Your task to perform on an android device: toggle pop-ups in chrome Image 0: 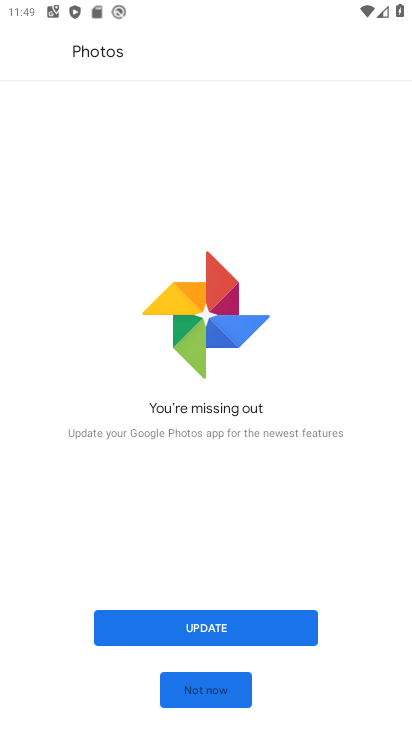
Step 0: press home button
Your task to perform on an android device: toggle pop-ups in chrome Image 1: 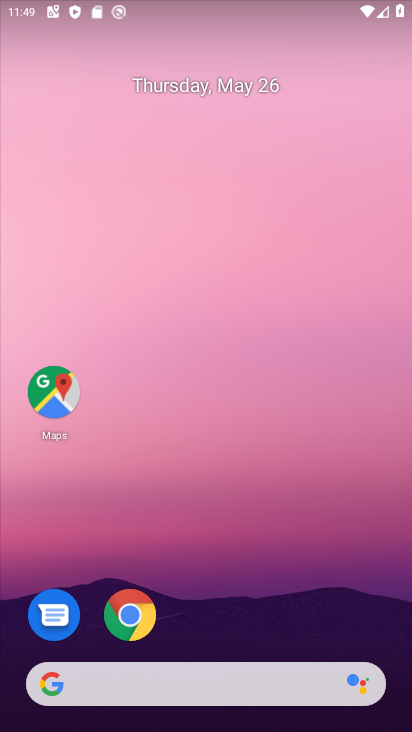
Step 1: click (134, 618)
Your task to perform on an android device: toggle pop-ups in chrome Image 2: 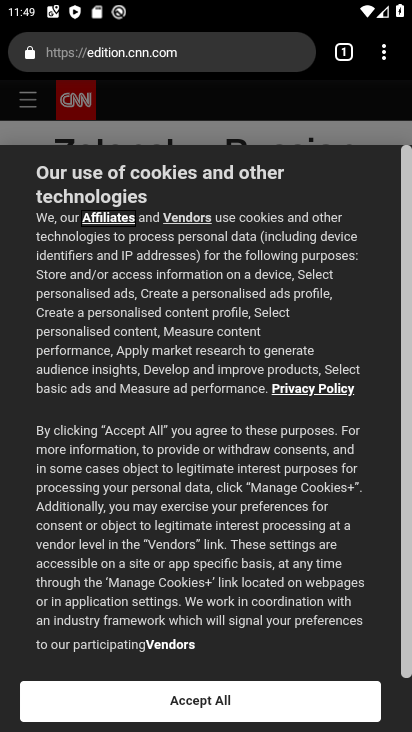
Step 2: click (383, 71)
Your task to perform on an android device: toggle pop-ups in chrome Image 3: 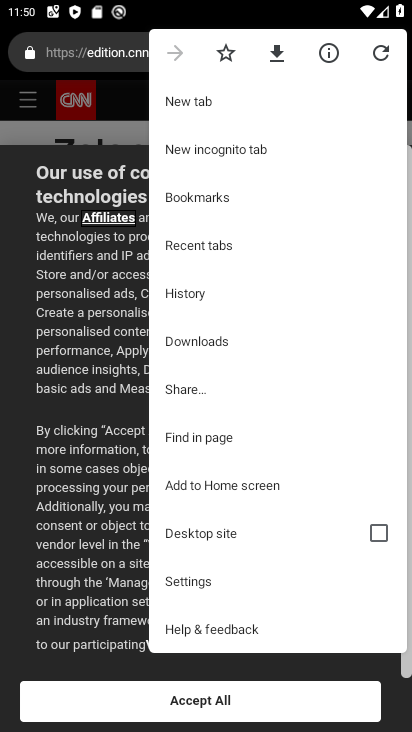
Step 3: click (253, 583)
Your task to perform on an android device: toggle pop-ups in chrome Image 4: 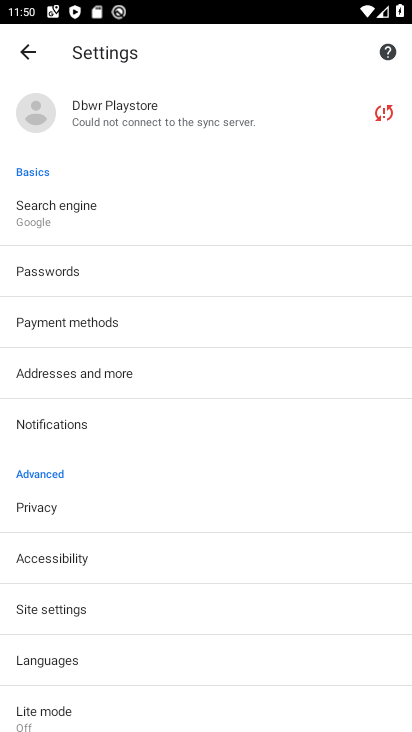
Step 4: drag from (229, 690) to (227, 450)
Your task to perform on an android device: toggle pop-ups in chrome Image 5: 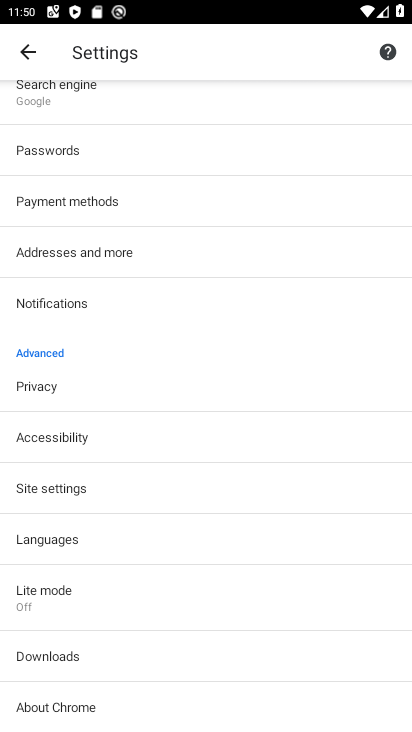
Step 5: click (215, 485)
Your task to perform on an android device: toggle pop-ups in chrome Image 6: 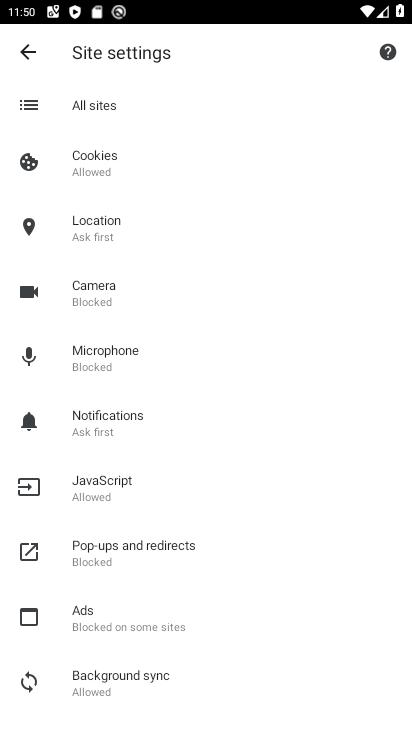
Step 6: click (194, 557)
Your task to perform on an android device: toggle pop-ups in chrome Image 7: 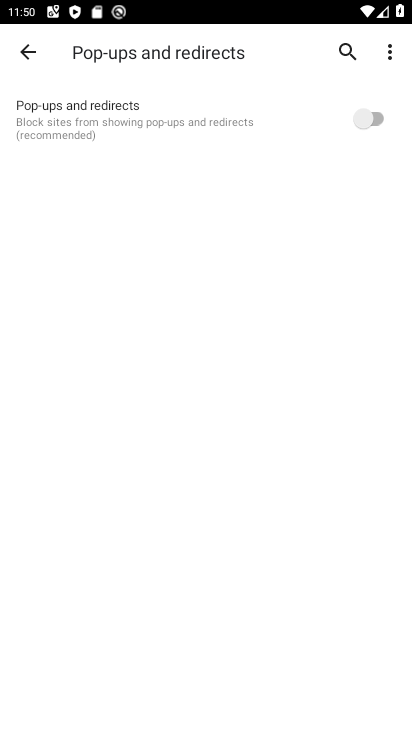
Step 7: click (377, 121)
Your task to perform on an android device: toggle pop-ups in chrome Image 8: 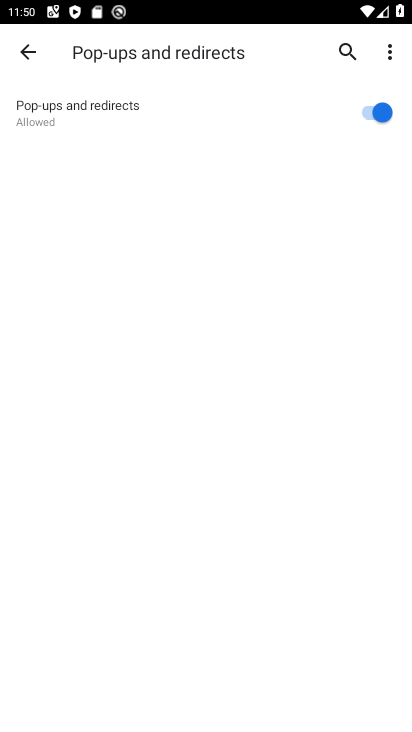
Step 8: task complete